Your task to perform on an android device: delete browsing data in the chrome app Image 0: 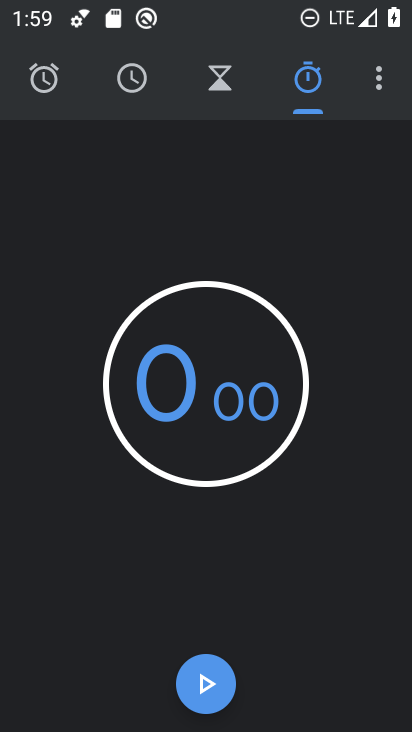
Step 0: press home button
Your task to perform on an android device: delete browsing data in the chrome app Image 1: 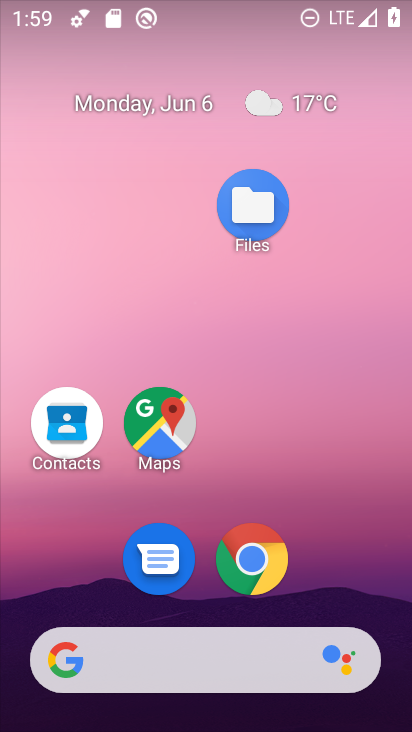
Step 1: drag from (209, 616) to (283, 130)
Your task to perform on an android device: delete browsing data in the chrome app Image 2: 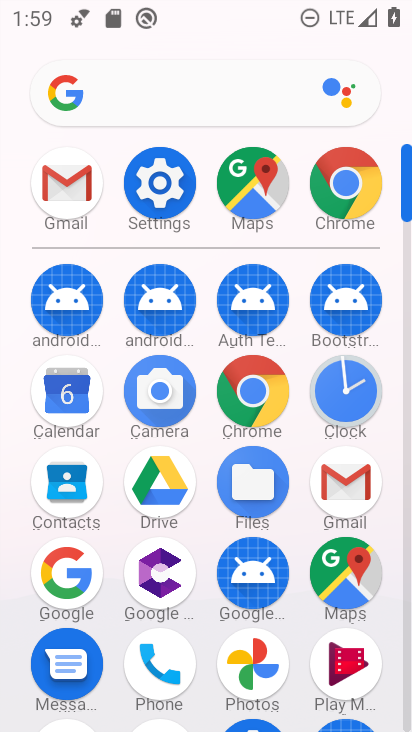
Step 2: click (264, 404)
Your task to perform on an android device: delete browsing data in the chrome app Image 3: 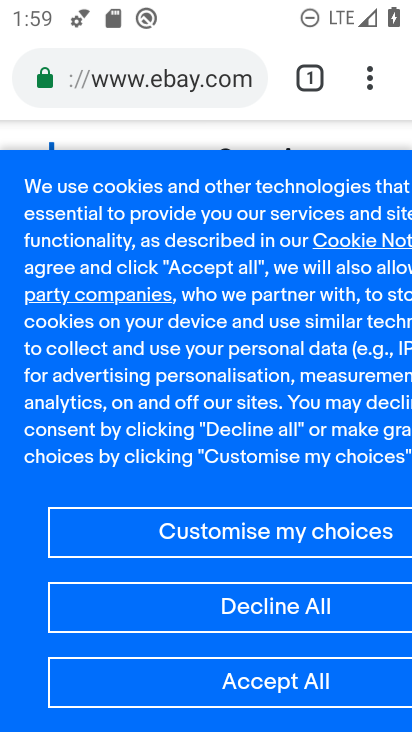
Step 3: click (358, 89)
Your task to perform on an android device: delete browsing data in the chrome app Image 4: 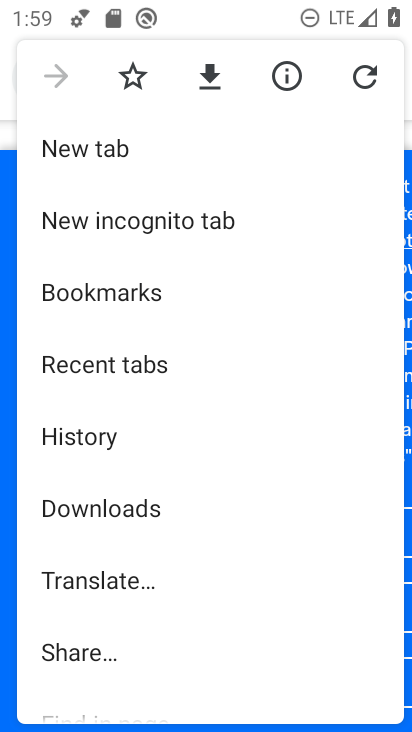
Step 4: click (102, 440)
Your task to perform on an android device: delete browsing data in the chrome app Image 5: 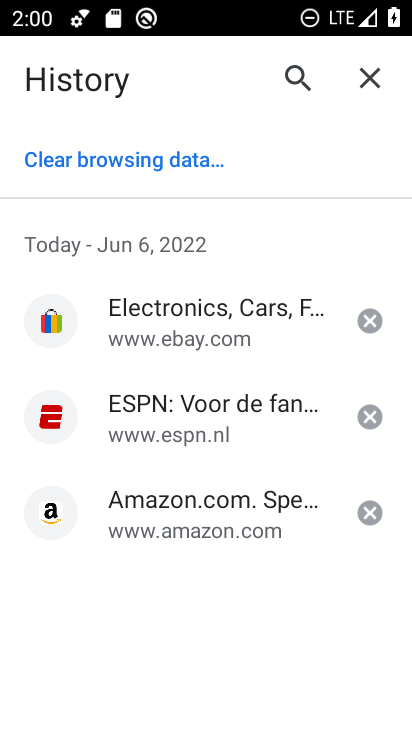
Step 5: click (146, 172)
Your task to perform on an android device: delete browsing data in the chrome app Image 6: 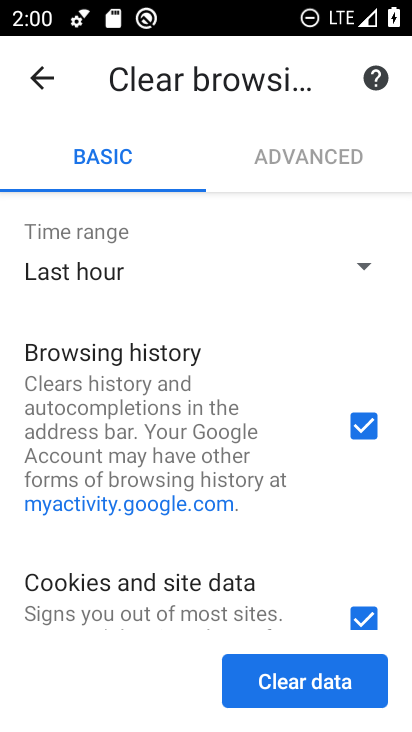
Step 6: click (299, 680)
Your task to perform on an android device: delete browsing data in the chrome app Image 7: 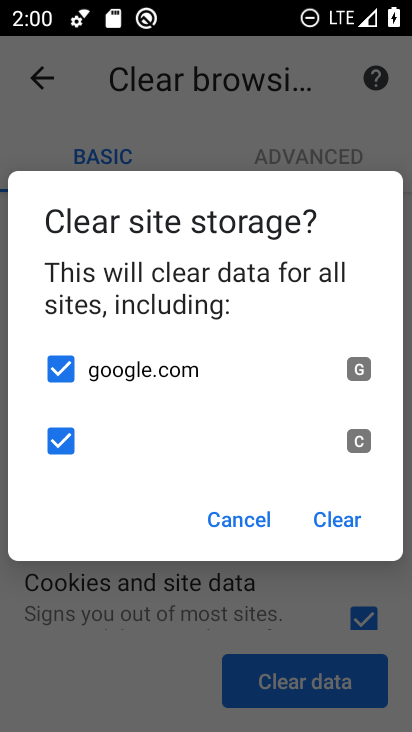
Step 7: click (333, 511)
Your task to perform on an android device: delete browsing data in the chrome app Image 8: 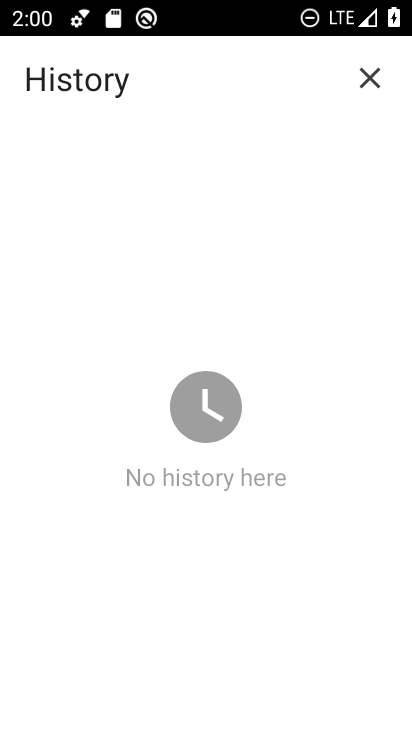
Step 8: task complete